Your task to perform on an android device: Go to CNN.com Image 0: 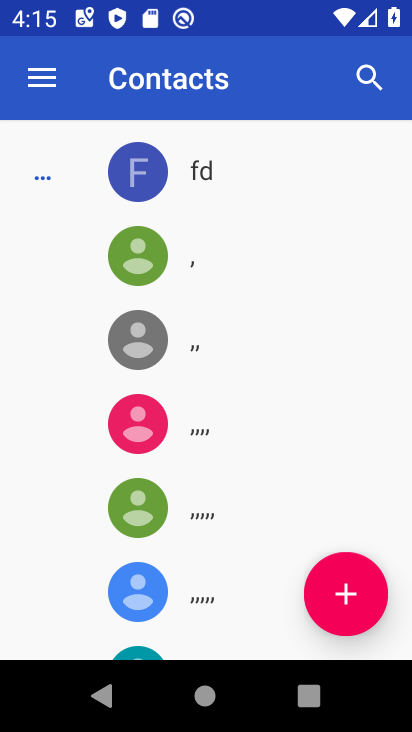
Step 0: drag from (139, 291) to (161, 59)
Your task to perform on an android device: Go to CNN.com Image 1: 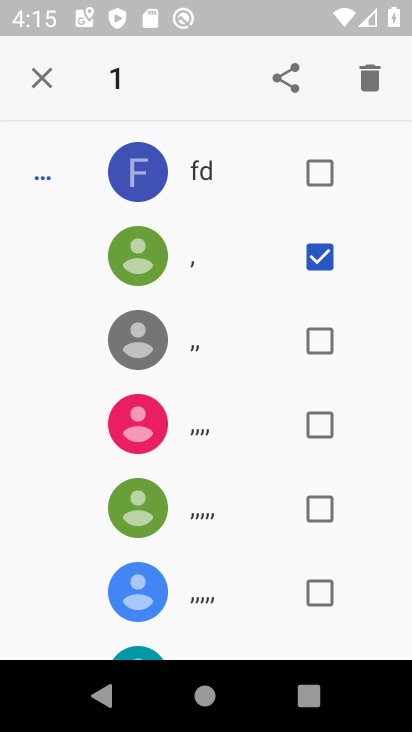
Step 1: press home button
Your task to perform on an android device: Go to CNN.com Image 2: 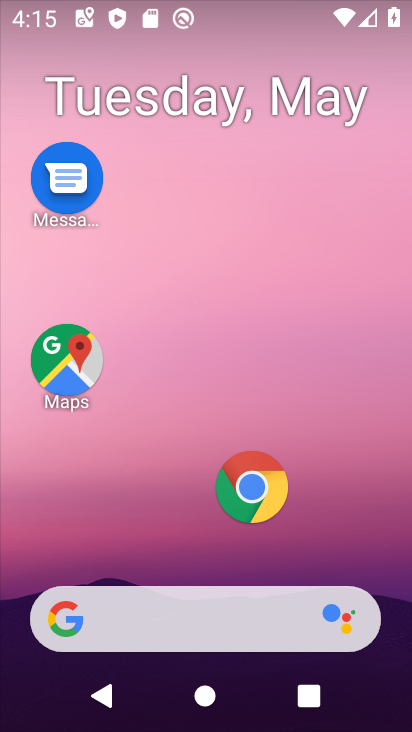
Step 2: drag from (207, 378) to (190, 1)
Your task to perform on an android device: Go to CNN.com Image 3: 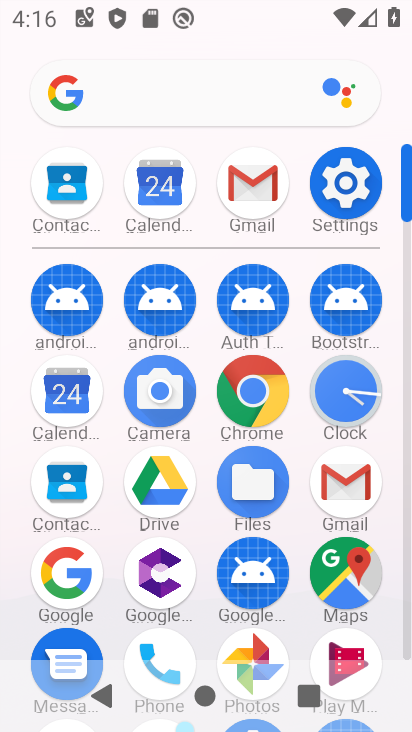
Step 3: click (255, 187)
Your task to perform on an android device: Go to CNN.com Image 4: 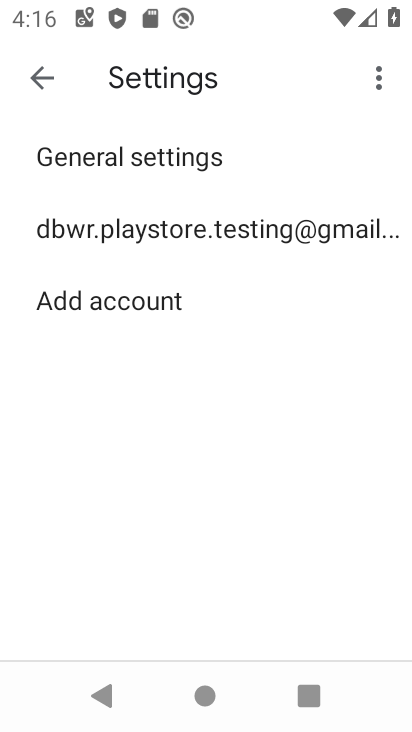
Step 4: click (272, 235)
Your task to perform on an android device: Go to CNN.com Image 5: 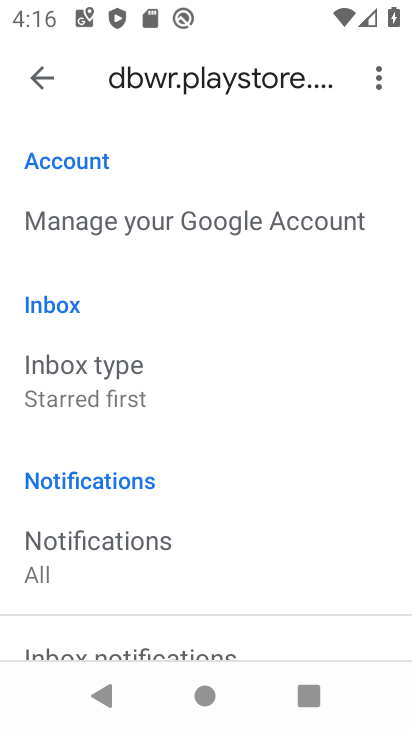
Step 5: click (49, 73)
Your task to perform on an android device: Go to CNN.com Image 6: 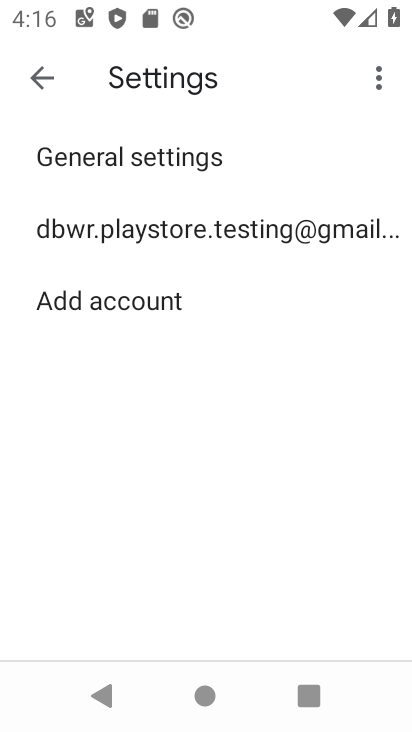
Step 6: click (49, 73)
Your task to perform on an android device: Go to CNN.com Image 7: 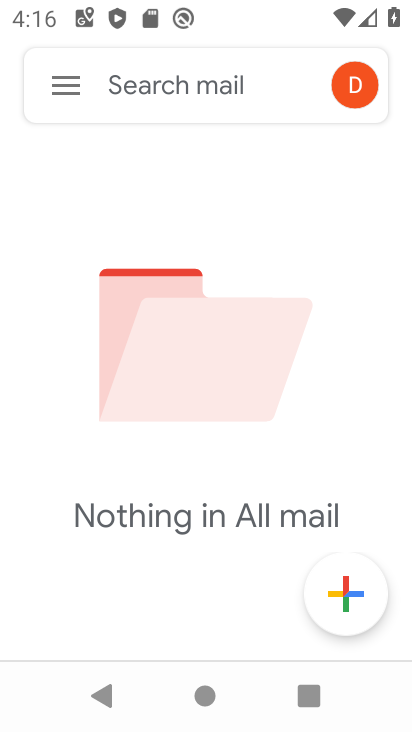
Step 7: press home button
Your task to perform on an android device: Go to CNN.com Image 8: 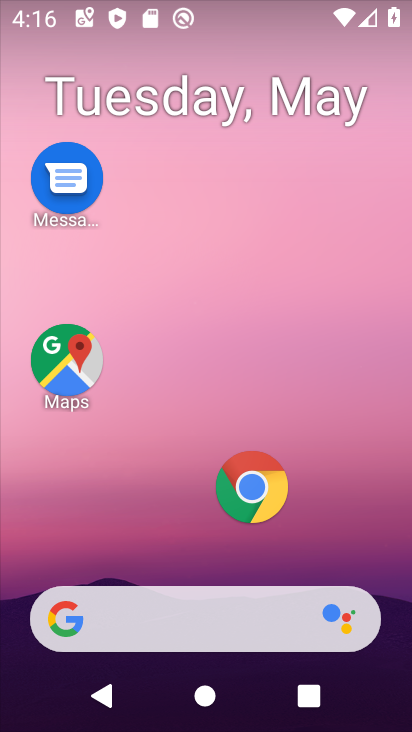
Step 8: click (252, 495)
Your task to perform on an android device: Go to CNN.com Image 9: 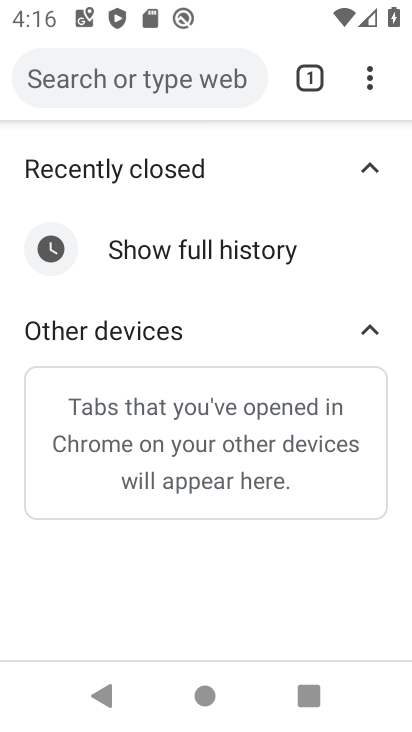
Step 9: click (187, 81)
Your task to perform on an android device: Go to CNN.com Image 10: 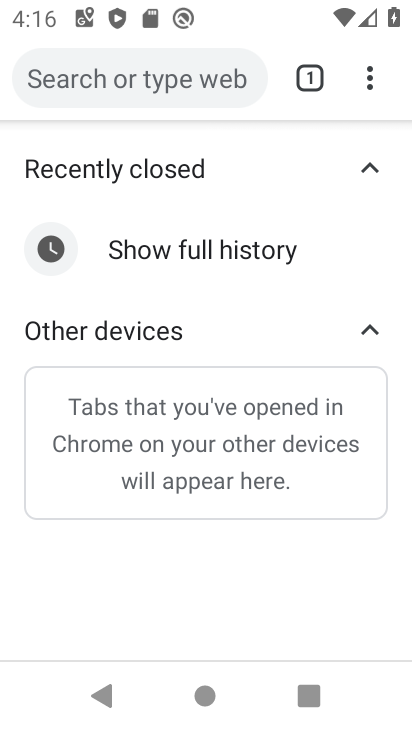
Step 10: click (179, 84)
Your task to perform on an android device: Go to CNN.com Image 11: 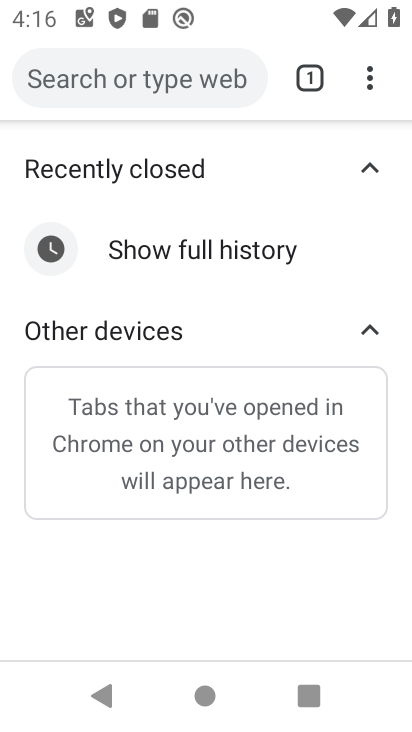
Step 11: click (150, 65)
Your task to perform on an android device: Go to CNN.com Image 12: 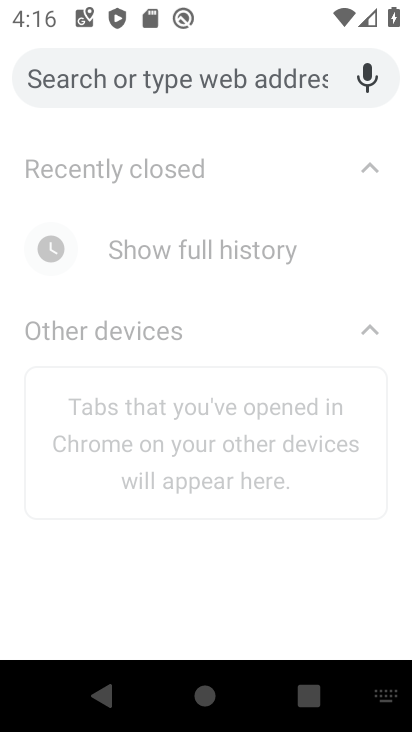
Step 12: type "www.cnn.com"
Your task to perform on an android device: Go to CNN.com Image 13: 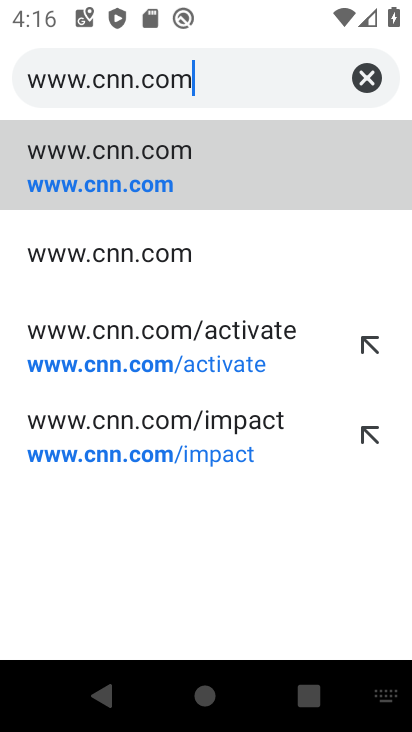
Step 13: click (231, 139)
Your task to perform on an android device: Go to CNN.com Image 14: 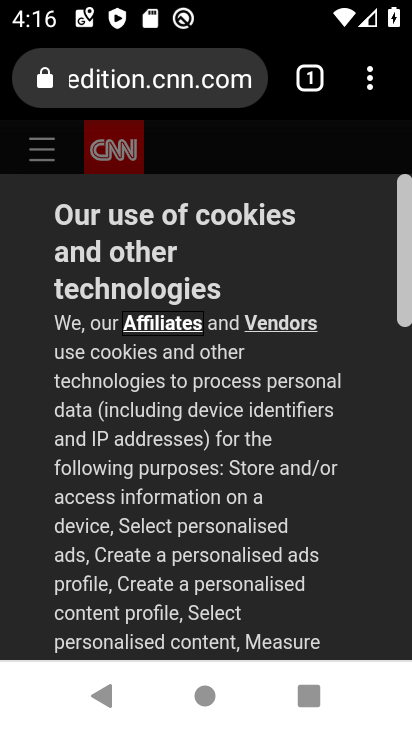
Step 14: task complete